Your task to perform on an android device: turn notification dots on Image 0: 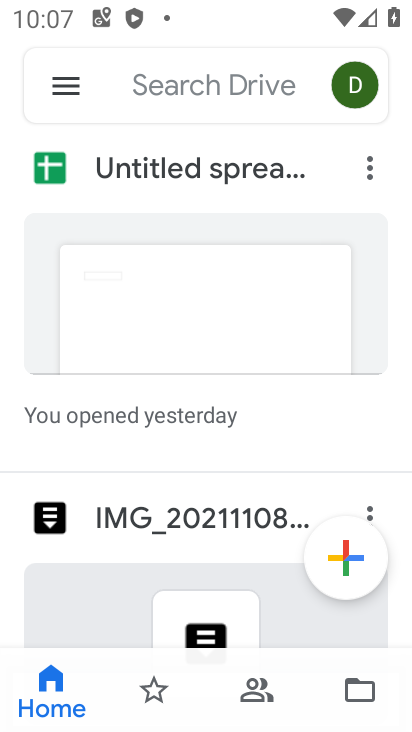
Step 0: press home button
Your task to perform on an android device: turn notification dots on Image 1: 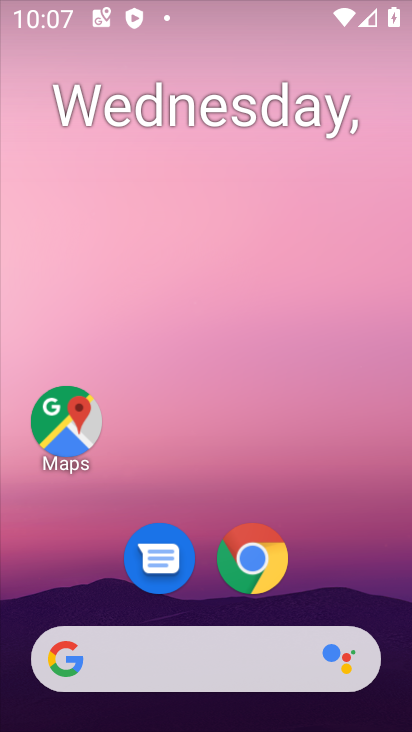
Step 1: drag from (22, 592) to (228, 212)
Your task to perform on an android device: turn notification dots on Image 2: 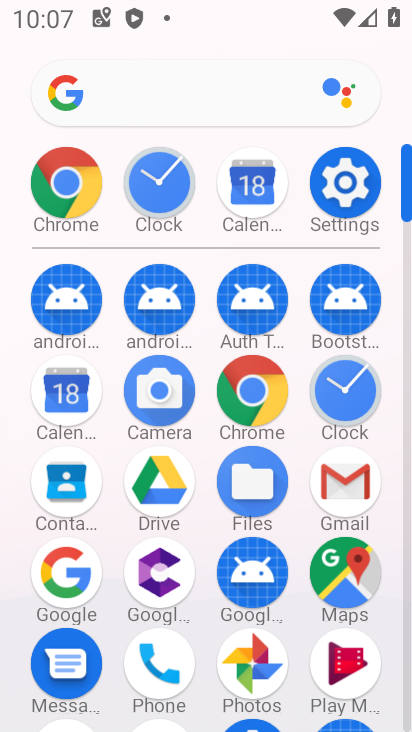
Step 2: click (327, 174)
Your task to perform on an android device: turn notification dots on Image 3: 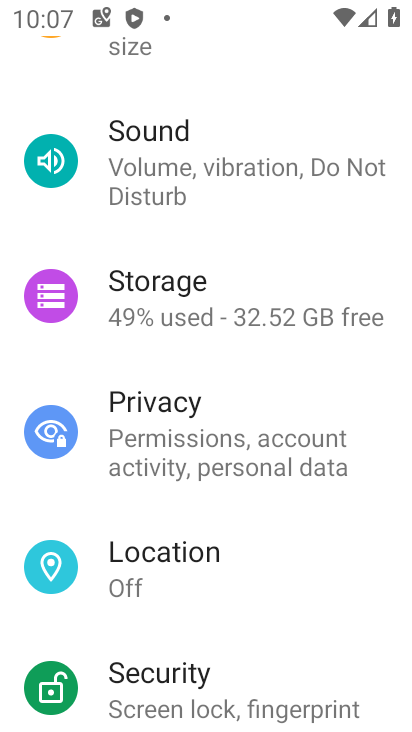
Step 3: drag from (68, 716) to (275, 108)
Your task to perform on an android device: turn notification dots on Image 4: 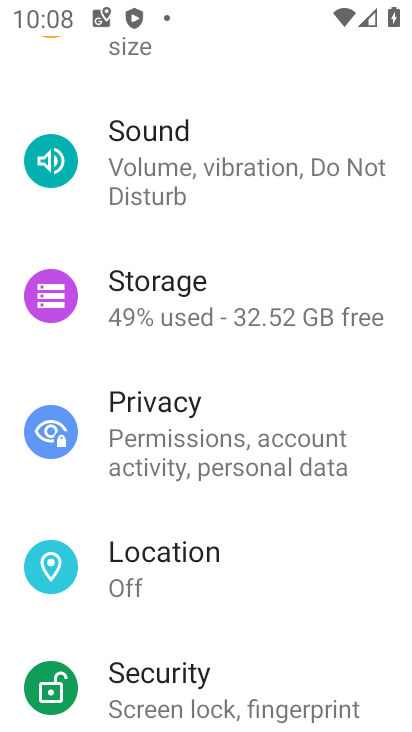
Step 4: drag from (52, 581) to (274, 102)
Your task to perform on an android device: turn notification dots on Image 5: 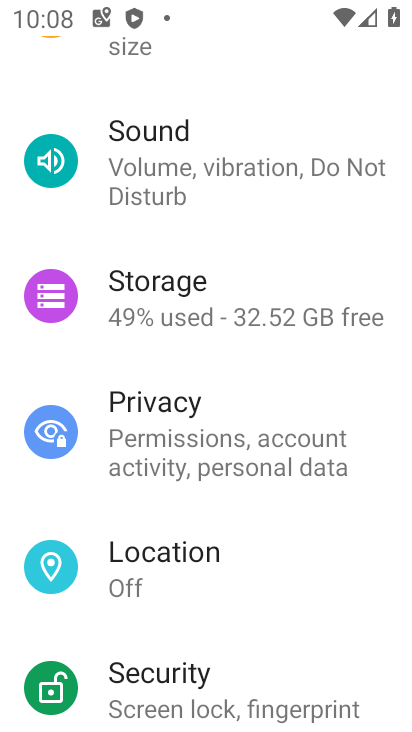
Step 5: drag from (117, 623) to (363, 54)
Your task to perform on an android device: turn notification dots on Image 6: 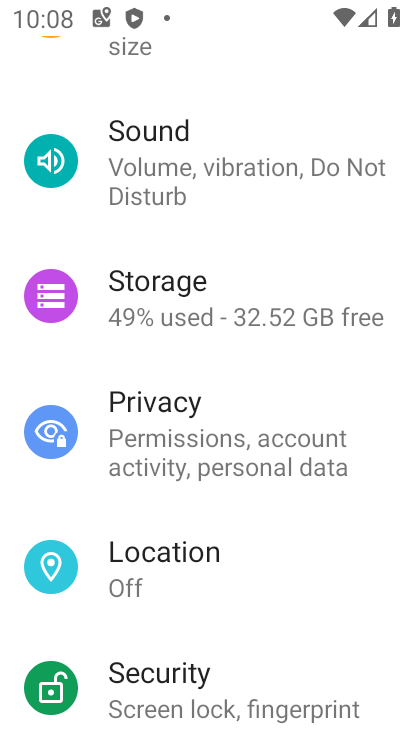
Step 6: drag from (26, 487) to (194, 165)
Your task to perform on an android device: turn notification dots on Image 7: 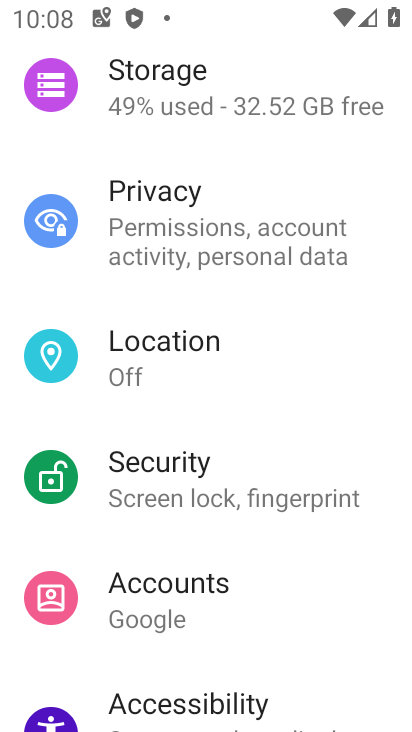
Step 7: drag from (223, 83) to (106, 644)
Your task to perform on an android device: turn notification dots on Image 8: 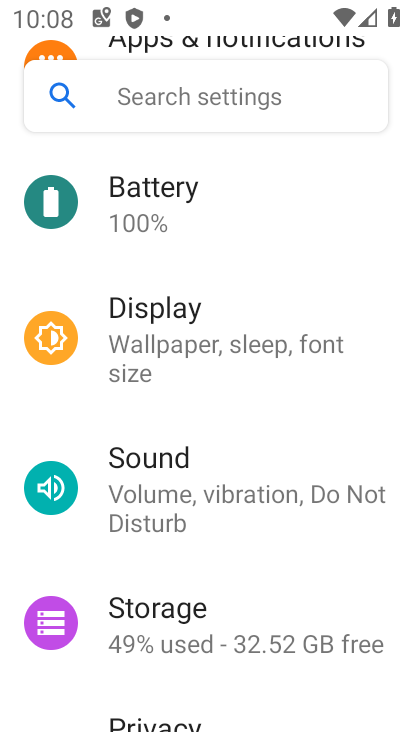
Step 8: drag from (240, 186) to (185, 579)
Your task to perform on an android device: turn notification dots on Image 9: 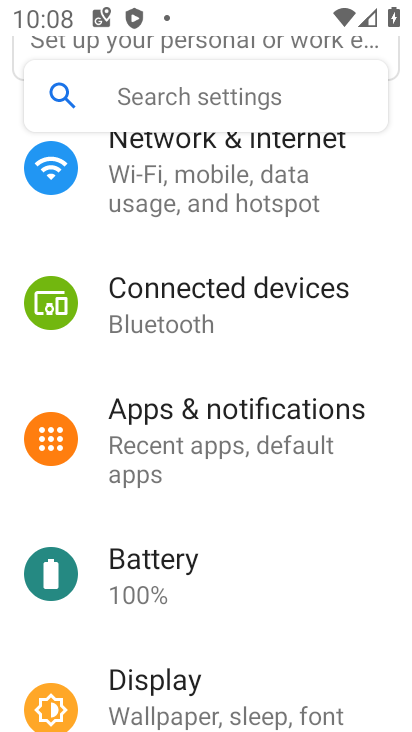
Step 9: click (187, 435)
Your task to perform on an android device: turn notification dots on Image 10: 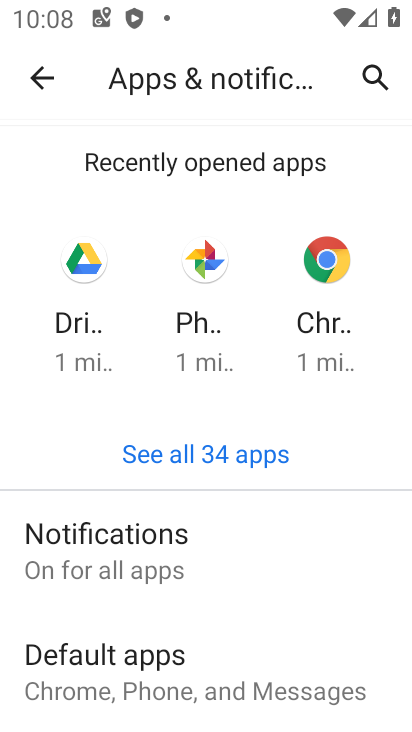
Step 10: click (184, 561)
Your task to perform on an android device: turn notification dots on Image 11: 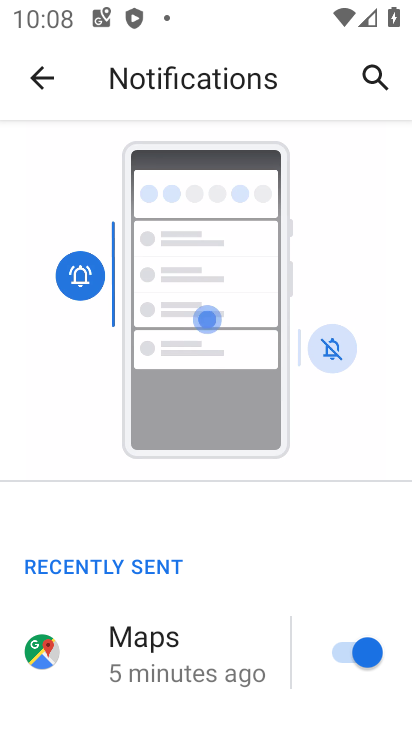
Step 11: drag from (82, 643) to (338, 187)
Your task to perform on an android device: turn notification dots on Image 12: 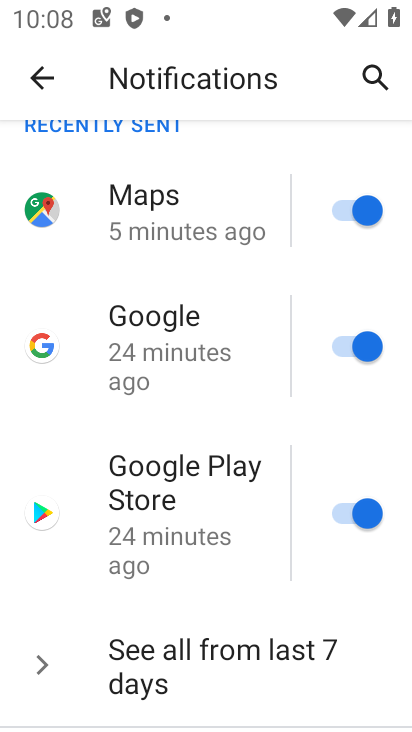
Step 12: drag from (78, 676) to (298, 298)
Your task to perform on an android device: turn notification dots on Image 13: 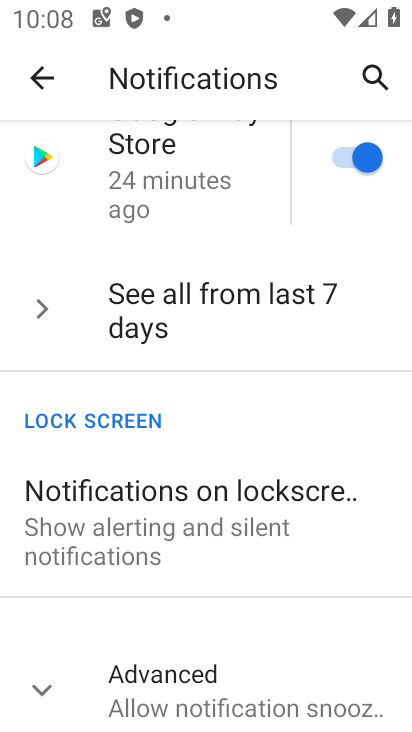
Step 13: click (238, 688)
Your task to perform on an android device: turn notification dots on Image 14: 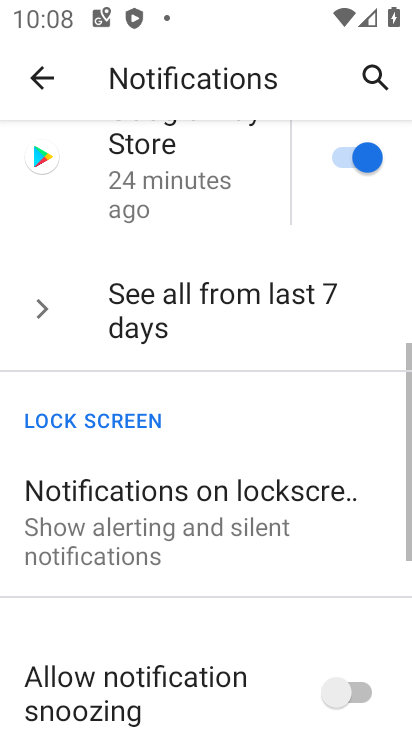
Step 14: drag from (6, 726) to (257, 427)
Your task to perform on an android device: turn notification dots on Image 15: 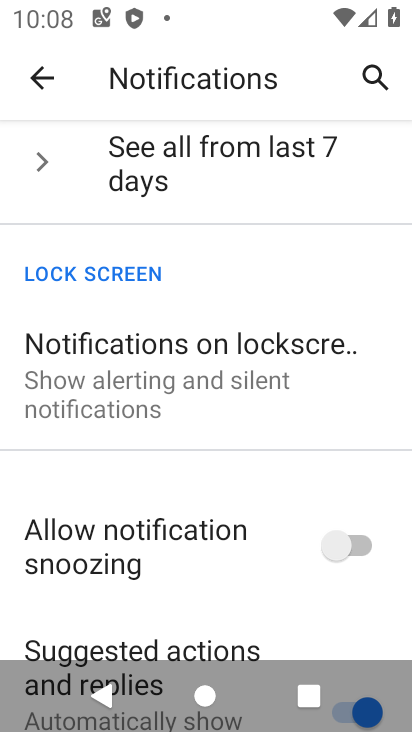
Step 15: drag from (1, 615) to (307, 273)
Your task to perform on an android device: turn notification dots on Image 16: 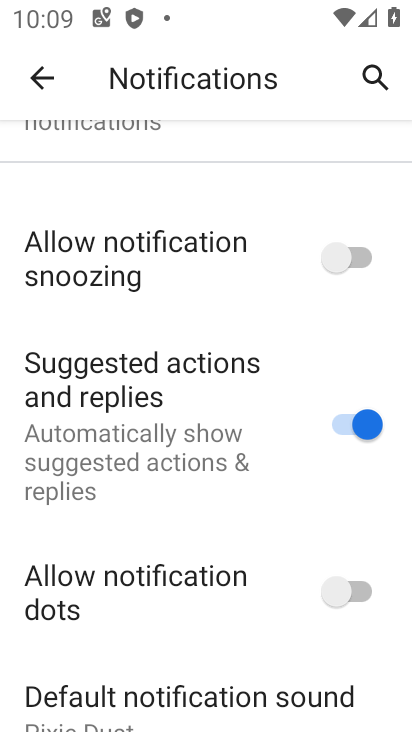
Step 16: click (329, 599)
Your task to perform on an android device: turn notification dots on Image 17: 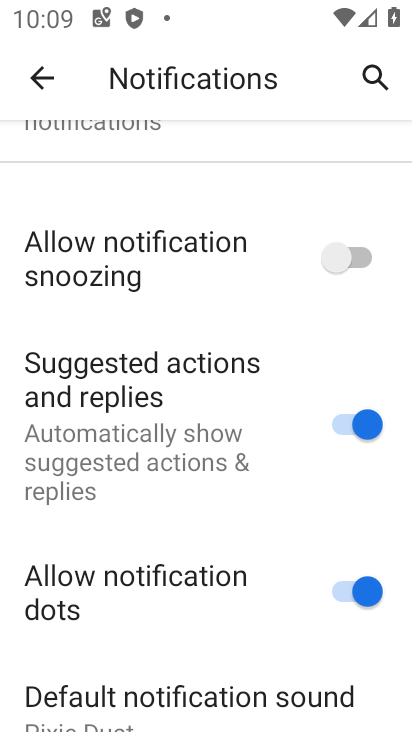
Step 17: task complete